Your task to perform on an android device: all mails in gmail Image 0: 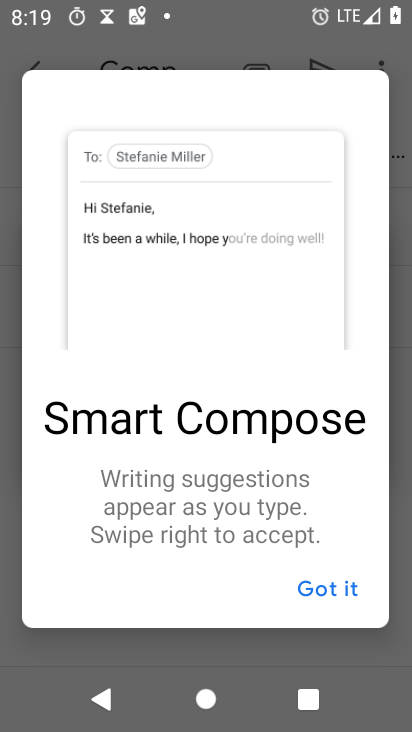
Step 0: press home button
Your task to perform on an android device: all mails in gmail Image 1: 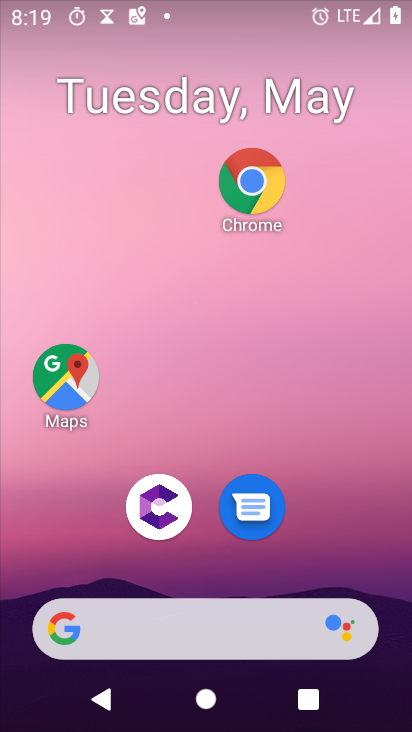
Step 1: drag from (326, 511) to (299, 169)
Your task to perform on an android device: all mails in gmail Image 2: 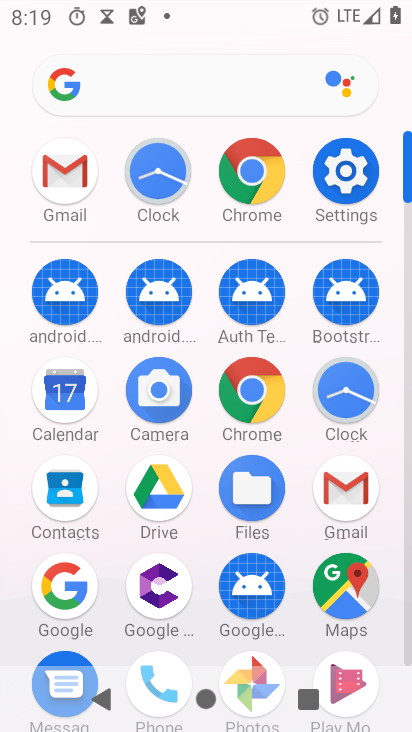
Step 2: click (62, 172)
Your task to perform on an android device: all mails in gmail Image 3: 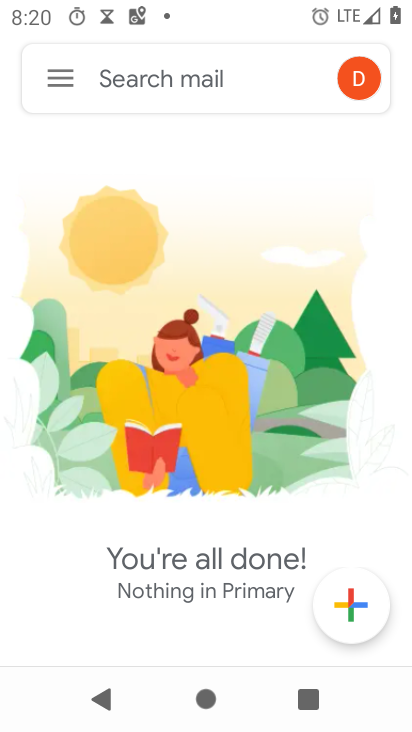
Step 3: click (65, 92)
Your task to perform on an android device: all mails in gmail Image 4: 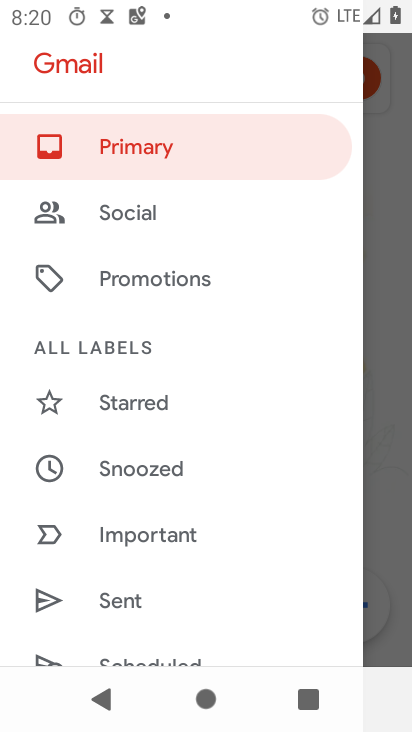
Step 4: drag from (160, 537) to (157, 282)
Your task to perform on an android device: all mails in gmail Image 5: 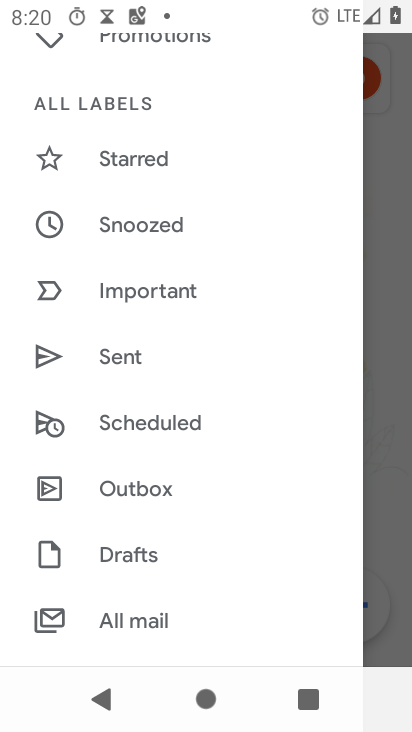
Step 5: click (181, 622)
Your task to perform on an android device: all mails in gmail Image 6: 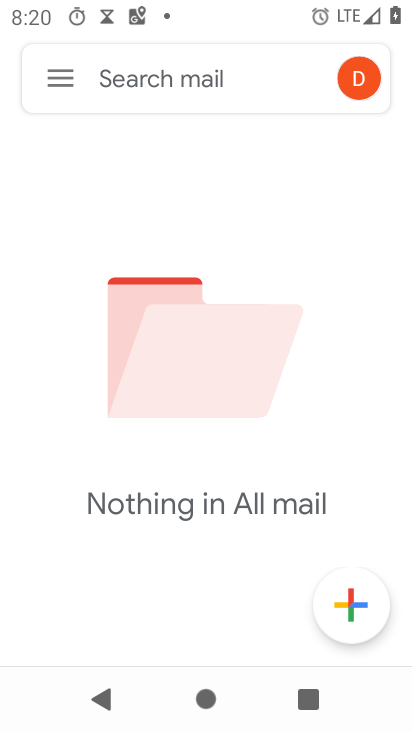
Step 6: task complete